Your task to perform on an android device: star an email in the gmail app Image 0: 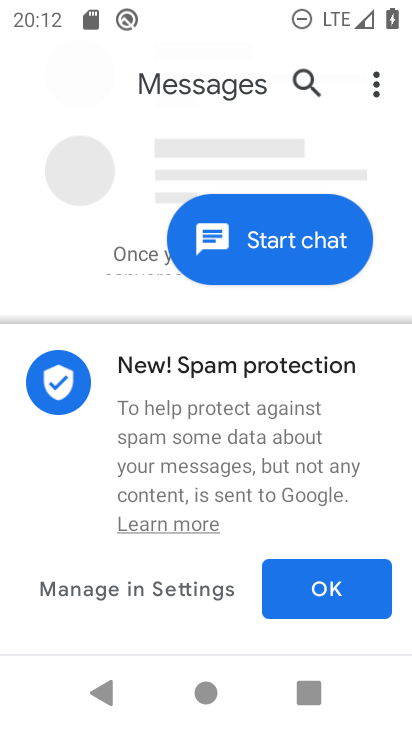
Step 0: press home button
Your task to perform on an android device: star an email in the gmail app Image 1: 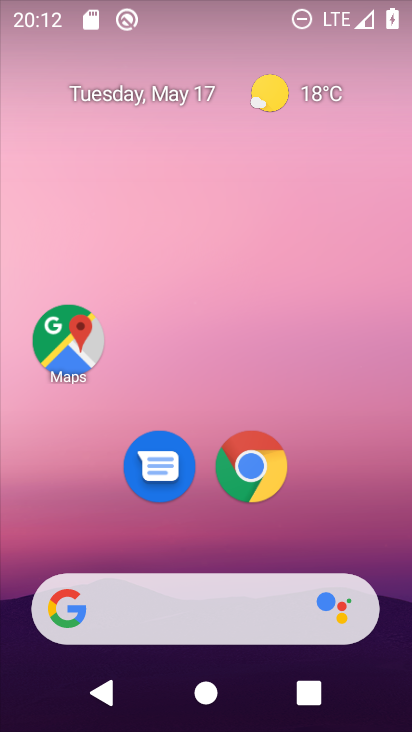
Step 1: drag from (188, 593) to (297, 205)
Your task to perform on an android device: star an email in the gmail app Image 2: 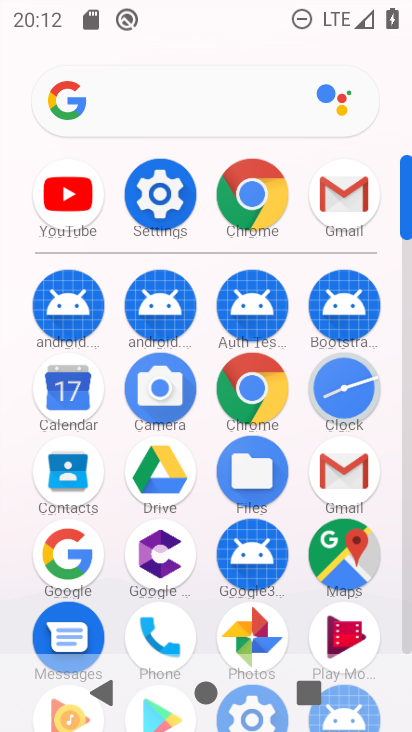
Step 2: click (347, 203)
Your task to perform on an android device: star an email in the gmail app Image 3: 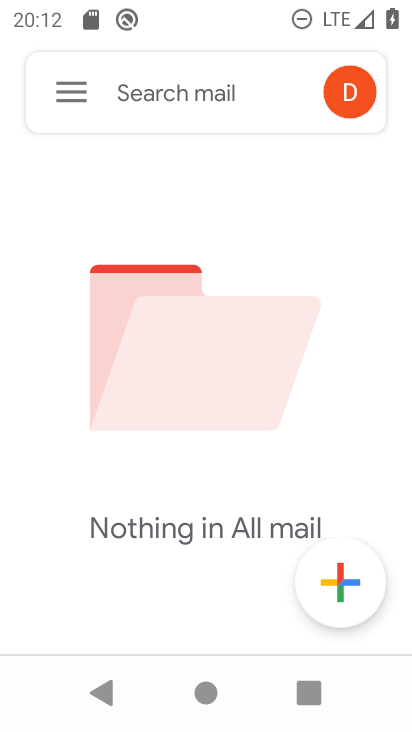
Step 3: task complete